Your task to perform on an android device: Open the calendar app, open the side menu, and click the "Day" option Image 0: 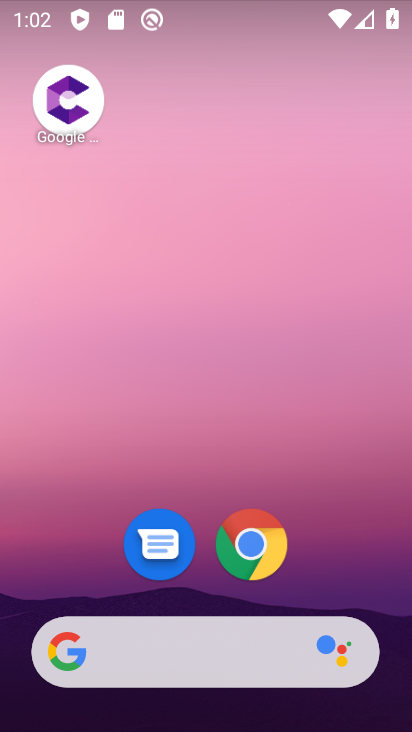
Step 0: drag from (80, 605) to (194, 102)
Your task to perform on an android device: Open the calendar app, open the side menu, and click the "Day" option Image 1: 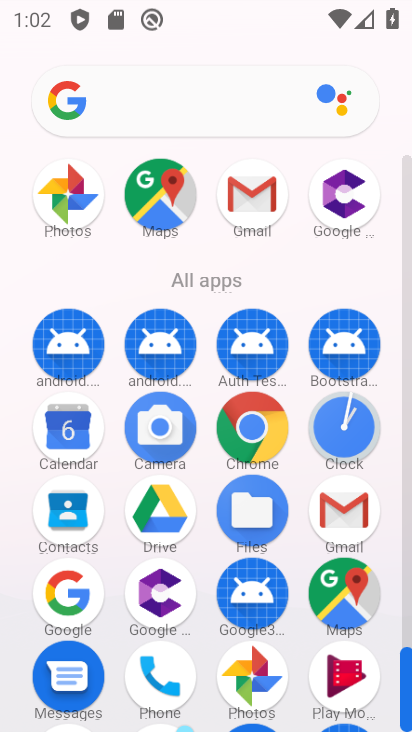
Step 1: click (70, 439)
Your task to perform on an android device: Open the calendar app, open the side menu, and click the "Day" option Image 2: 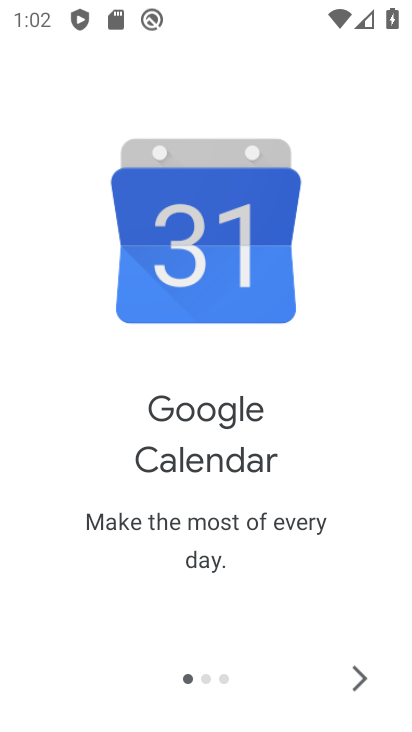
Step 2: click (360, 674)
Your task to perform on an android device: Open the calendar app, open the side menu, and click the "Day" option Image 3: 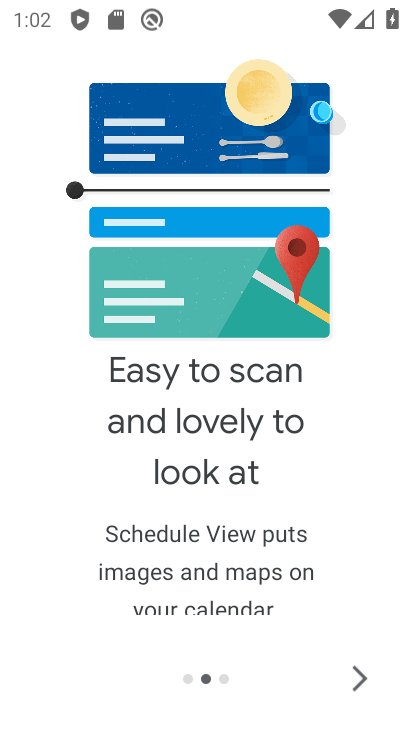
Step 3: click (359, 689)
Your task to perform on an android device: Open the calendar app, open the side menu, and click the "Day" option Image 4: 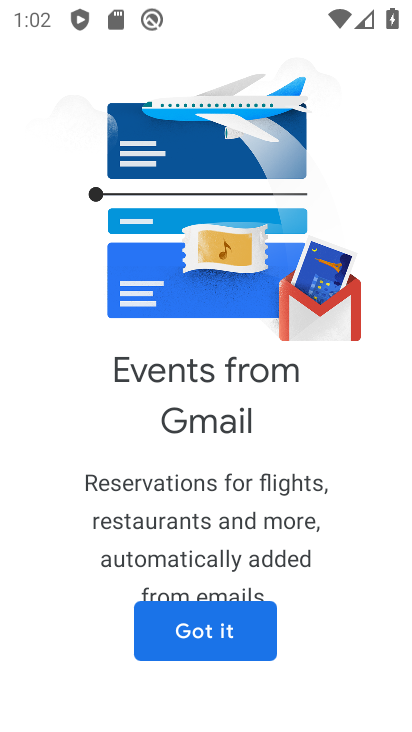
Step 4: click (249, 652)
Your task to perform on an android device: Open the calendar app, open the side menu, and click the "Day" option Image 5: 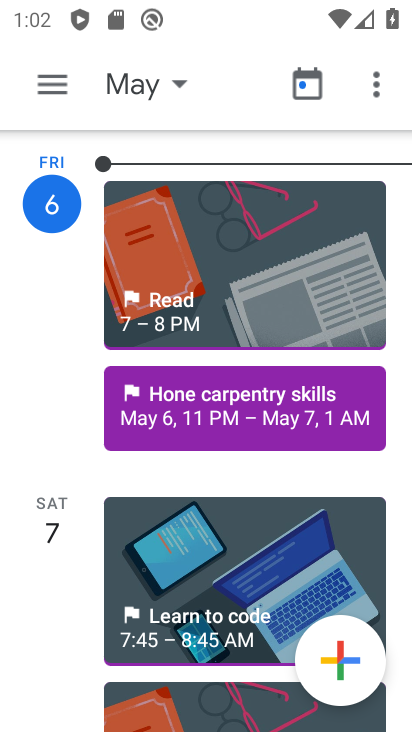
Step 5: click (60, 86)
Your task to perform on an android device: Open the calendar app, open the side menu, and click the "Day" option Image 6: 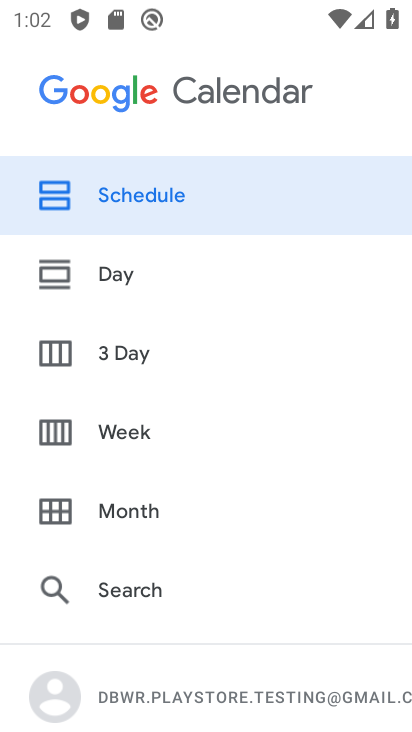
Step 6: click (138, 290)
Your task to perform on an android device: Open the calendar app, open the side menu, and click the "Day" option Image 7: 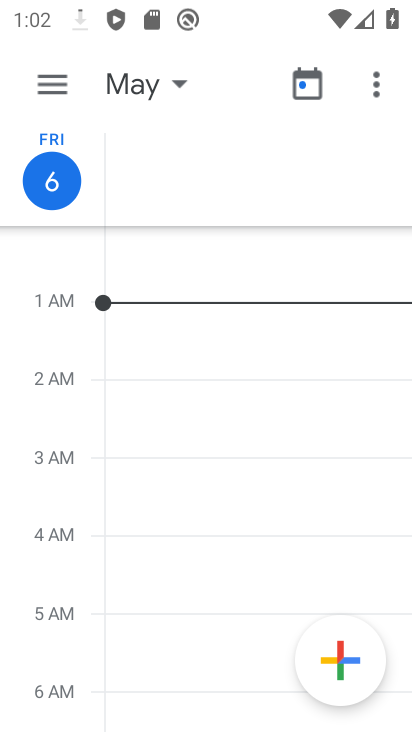
Step 7: task complete